Your task to perform on an android device: When is my next appointment? Image 0: 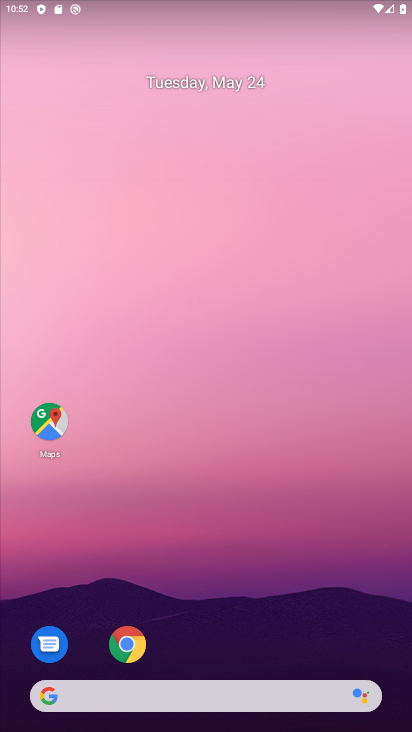
Step 0: drag from (243, 600) to (283, 58)
Your task to perform on an android device: When is my next appointment? Image 1: 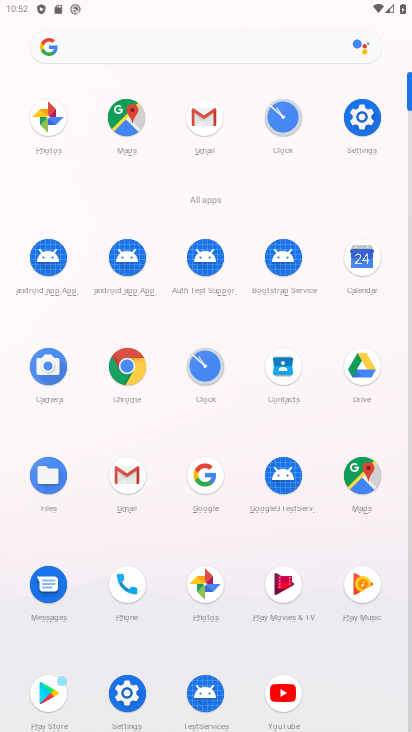
Step 1: click (365, 256)
Your task to perform on an android device: When is my next appointment? Image 2: 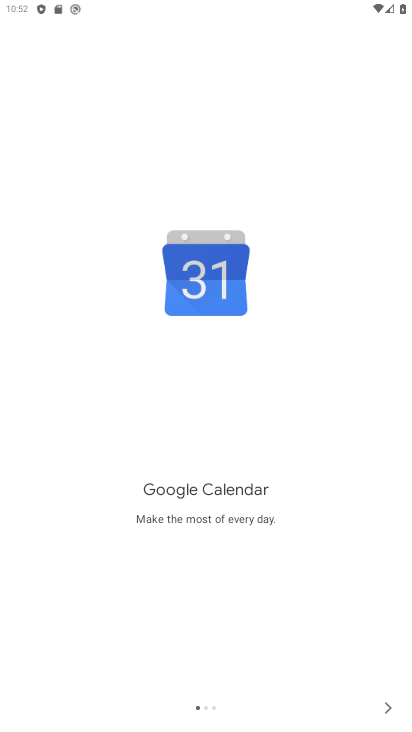
Step 2: click (386, 707)
Your task to perform on an android device: When is my next appointment? Image 3: 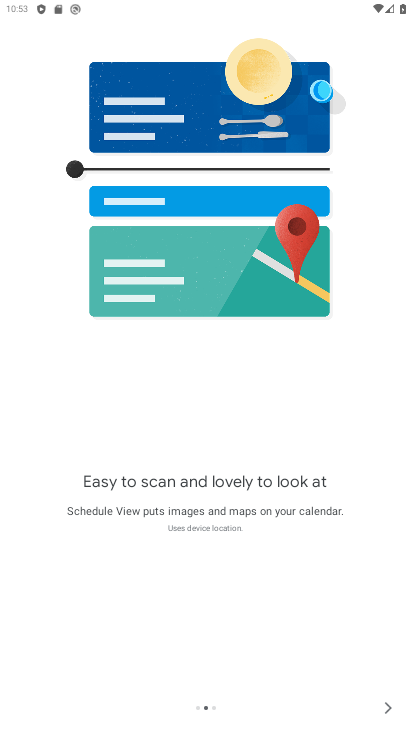
Step 3: click (386, 707)
Your task to perform on an android device: When is my next appointment? Image 4: 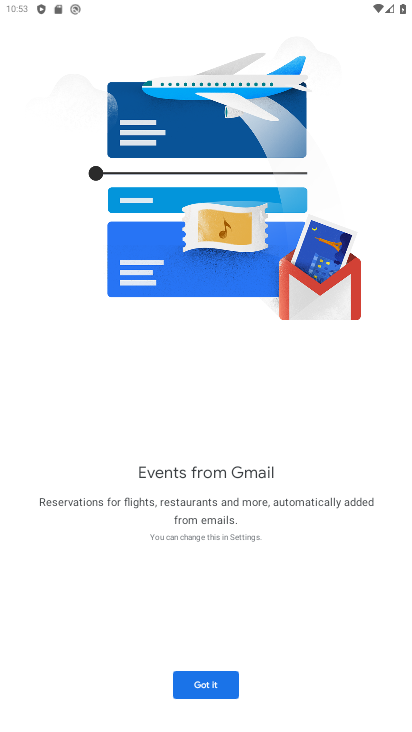
Step 4: click (207, 681)
Your task to perform on an android device: When is my next appointment? Image 5: 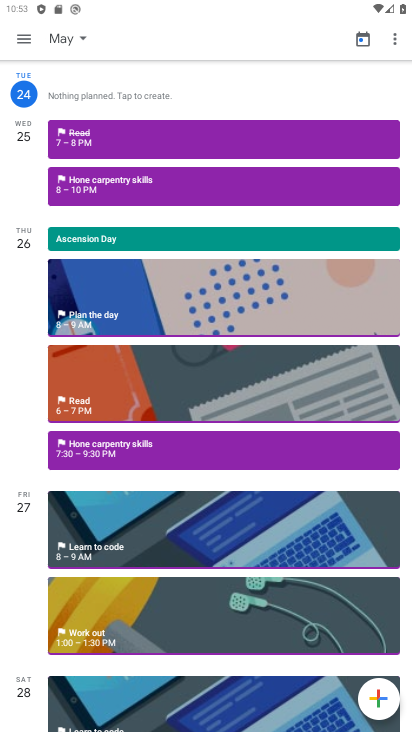
Step 5: click (83, 39)
Your task to perform on an android device: When is my next appointment? Image 6: 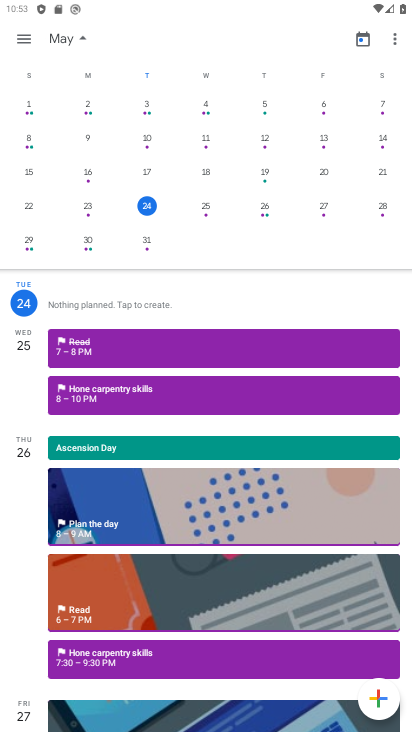
Step 6: click (207, 203)
Your task to perform on an android device: When is my next appointment? Image 7: 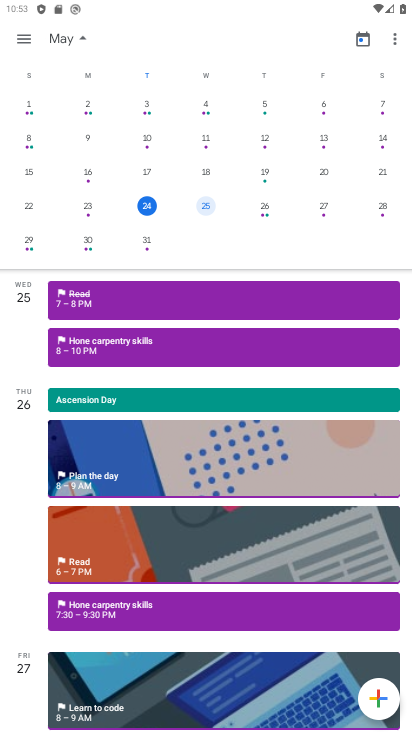
Step 7: click (26, 37)
Your task to perform on an android device: When is my next appointment? Image 8: 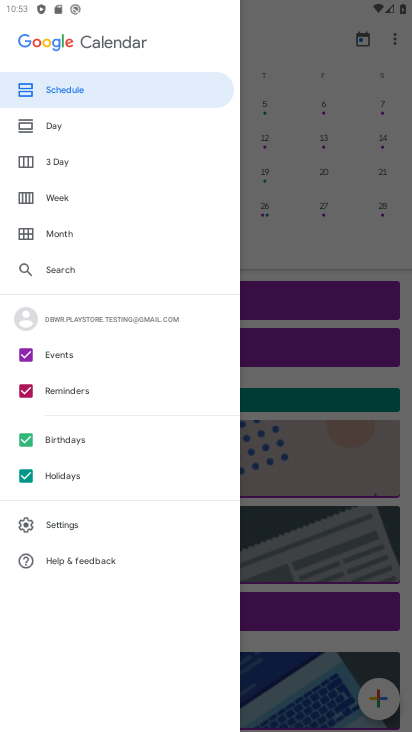
Step 8: click (53, 89)
Your task to perform on an android device: When is my next appointment? Image 9: 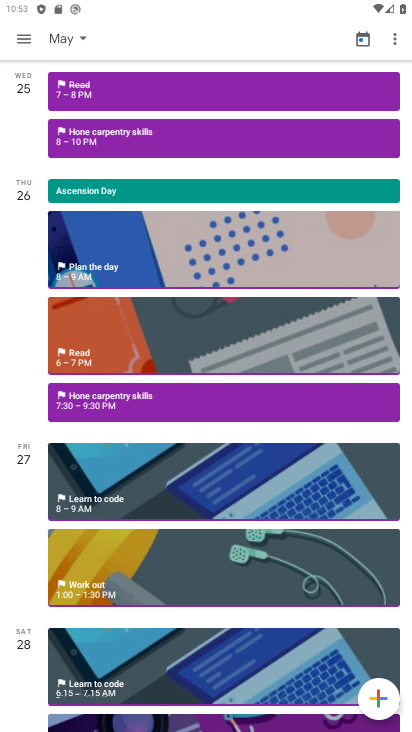
Step 9: task complete